Your task to perform on an android device: Search for the best rated tool bag on Lowe's. Image 0: 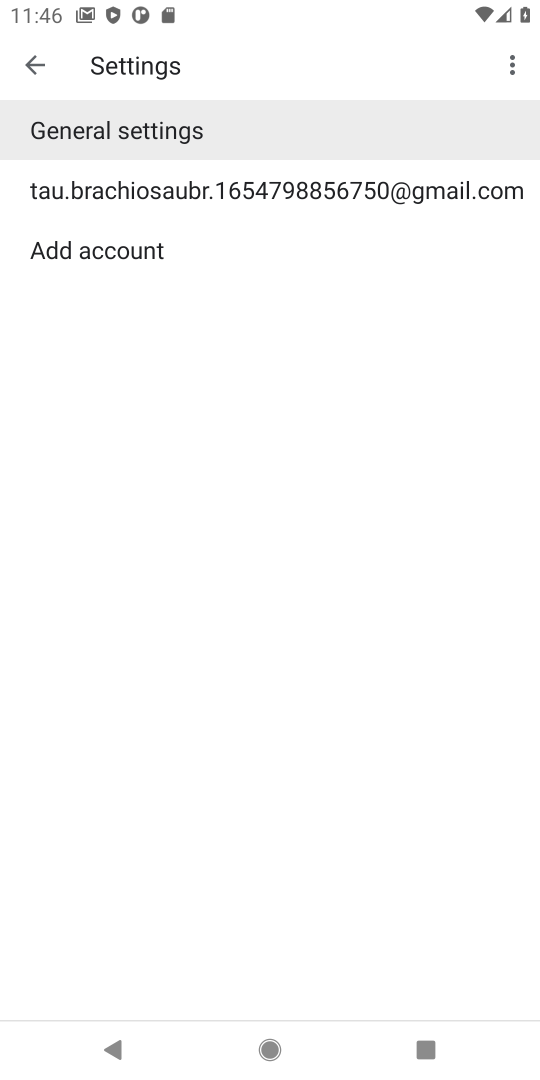
Step 0: press home button
Your task to perform on an android device: Search for the best rated tool bag on Lowe's. Image 1: 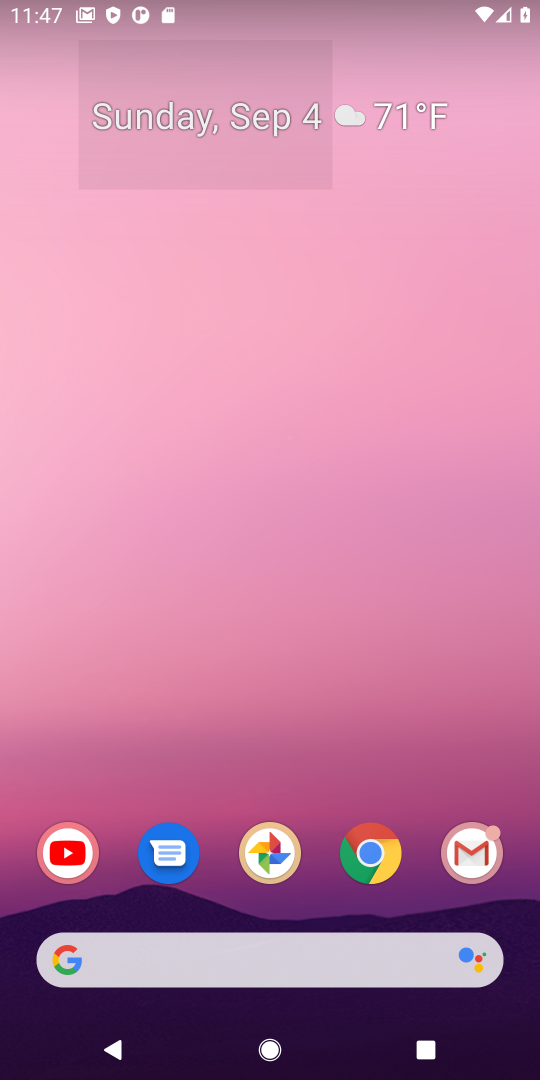
Step 1: click (367, 858)
Your task to perform on an android device: Search for the best rated tool bag on Lowe's. Image 2: 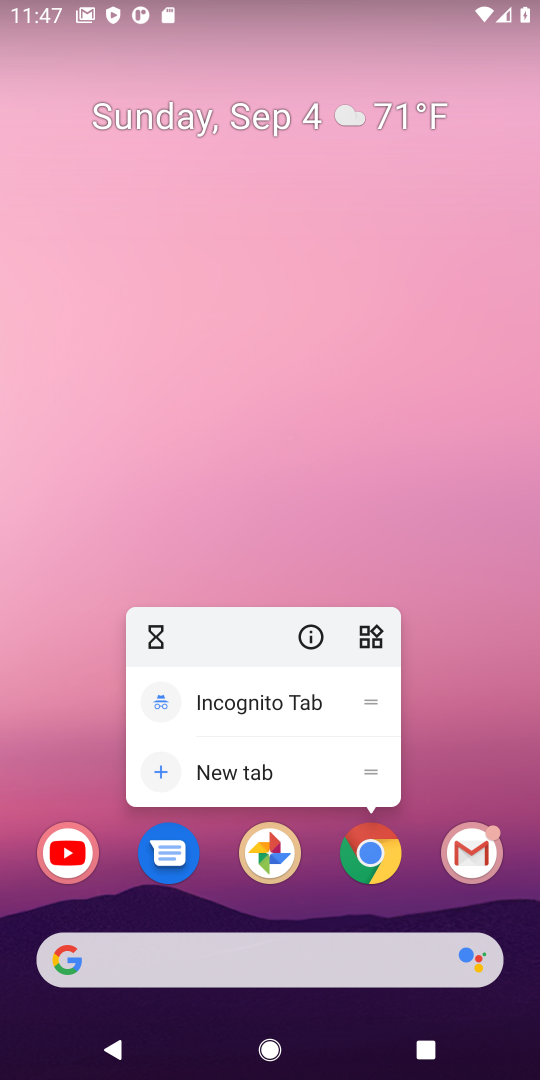
Step 2: click (375, 858)
Your task to perform on an android device: Search for the best rated tool bag on Lowe's. Image 3: 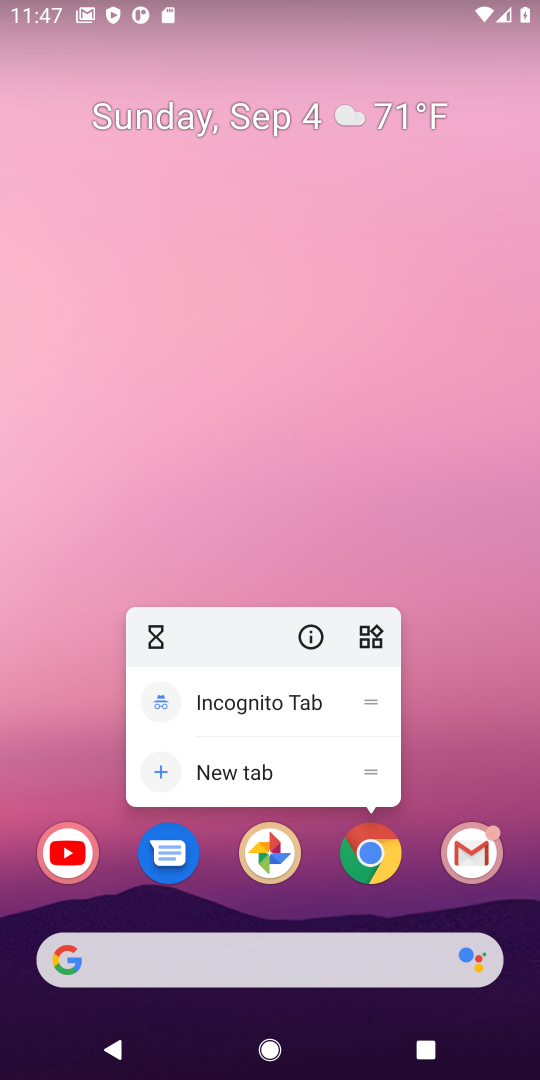
Step 3: click (375, 860)
Your task to perform on an android device: Search for the best rated tool bag on Lowe's. Image 4: 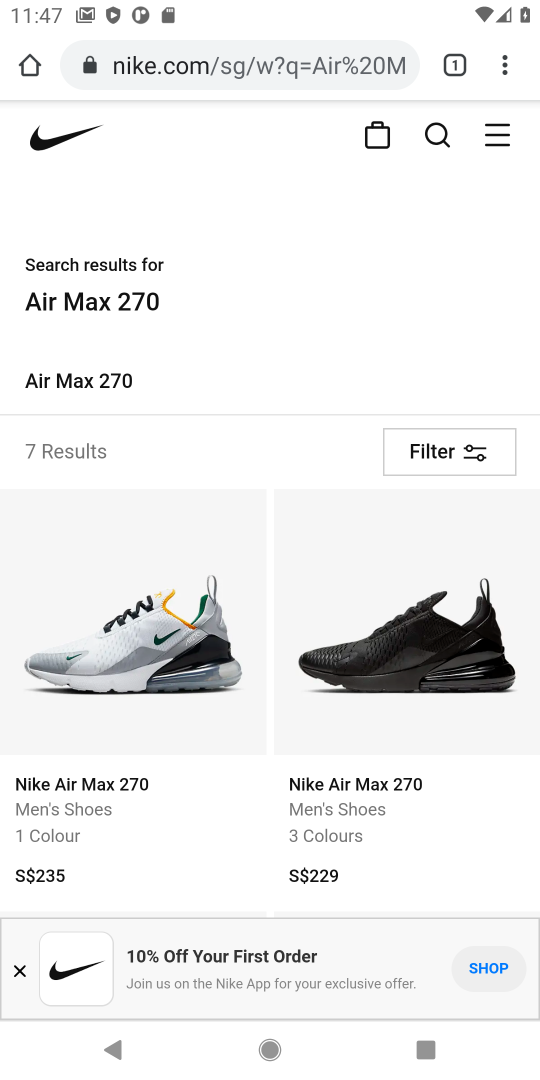
Step 4: click (204, 73)
Your task to perform on an android device: Search for the best rated tool bag on Lowe's. Image 5: 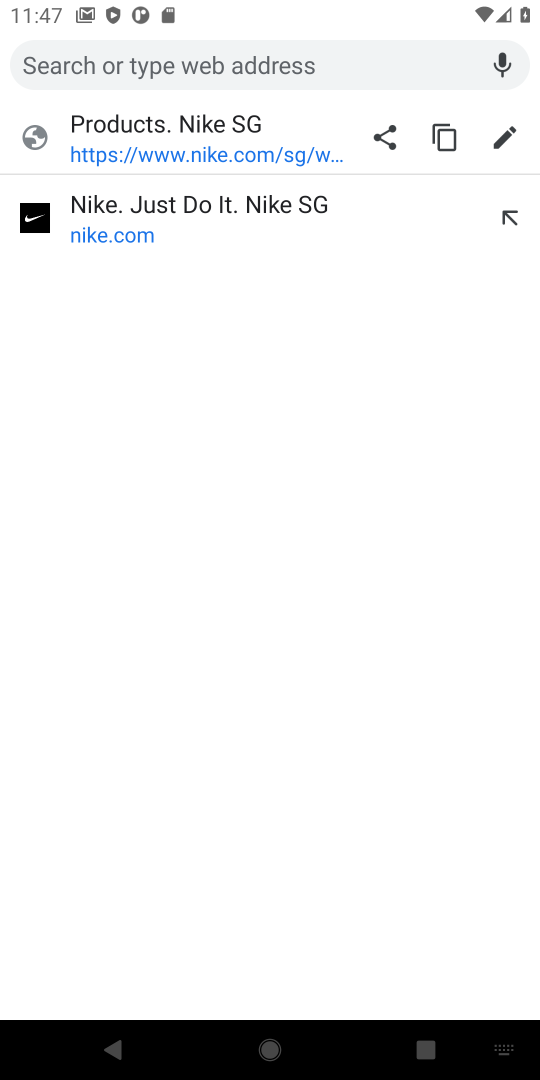
Step 5: type "Lowe's"
Your task to perform on an android device: Search for the best rated tool bag on Lowe's. Image 6: 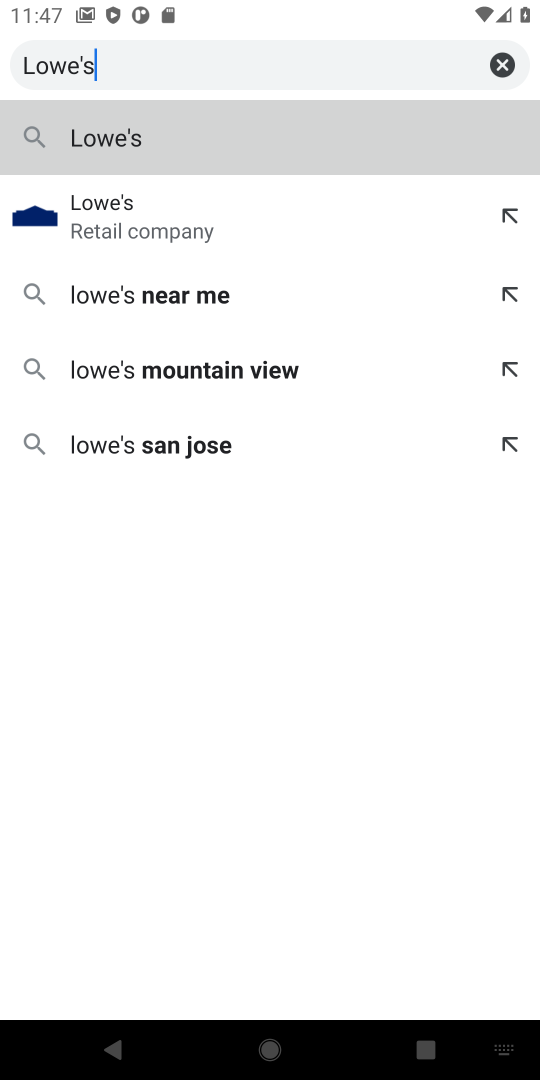
Step 6: press enter
Your task to perform on an android device: Search for the best rated tool bag on Lowe's. Image 7: 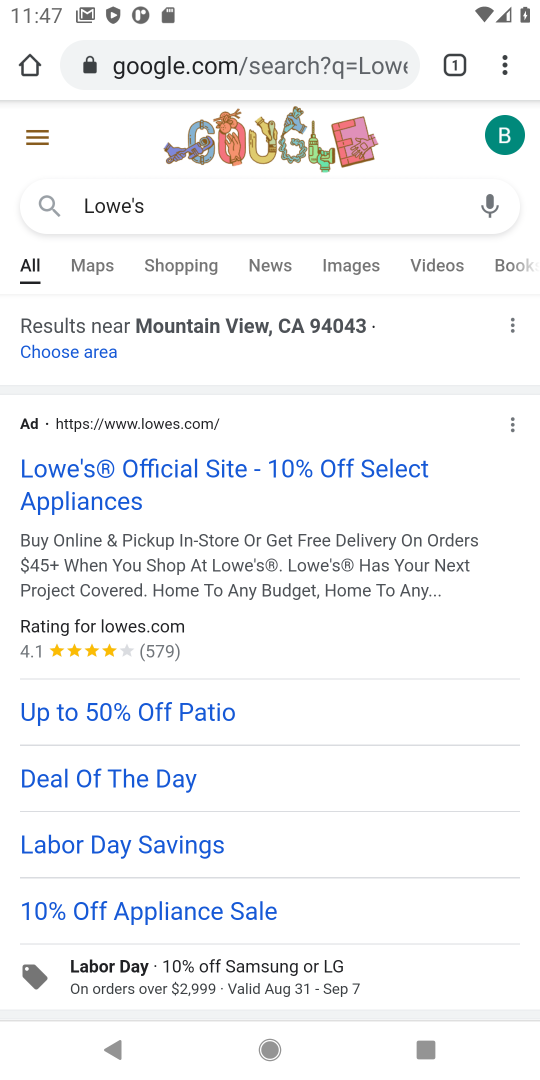
Step 7: click (177, 465)
Your task to perform on an android device: Search for the best rated tool bag on Lowe's. Image 8: 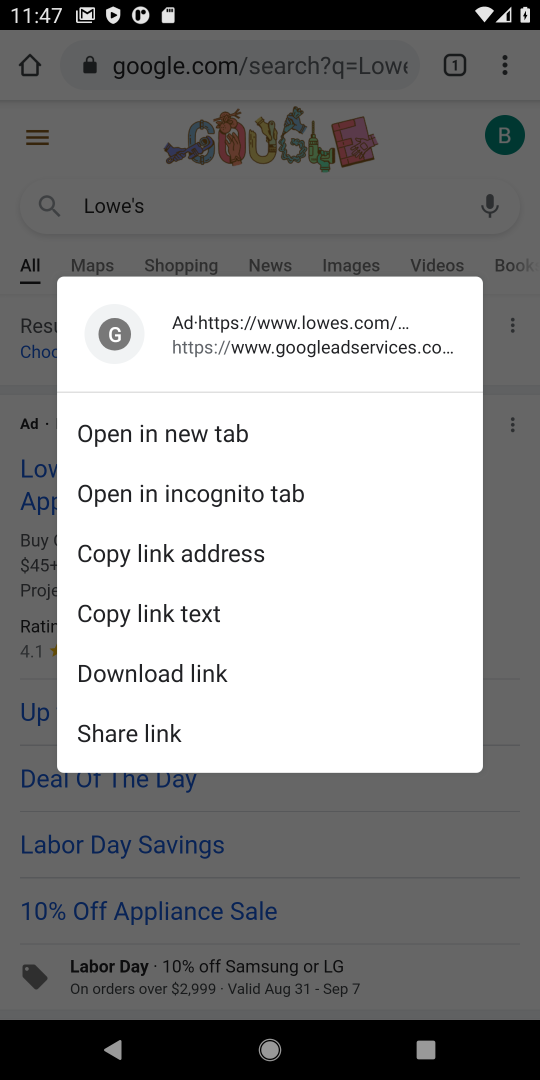
Step 8: click (499, 584)
Your task to perform on an android device: Search for the best rated tool bag on Lowe's. Image 9: 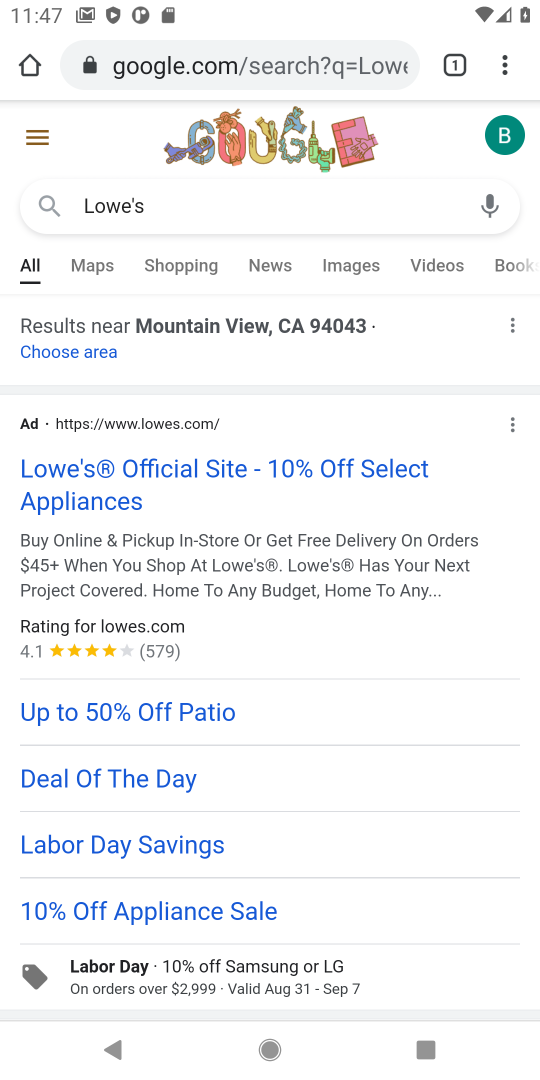
Step 9: click (68, 465)
Your task to perform on an android device: Search for the best rated tool bag on Lowe's. Image 10: 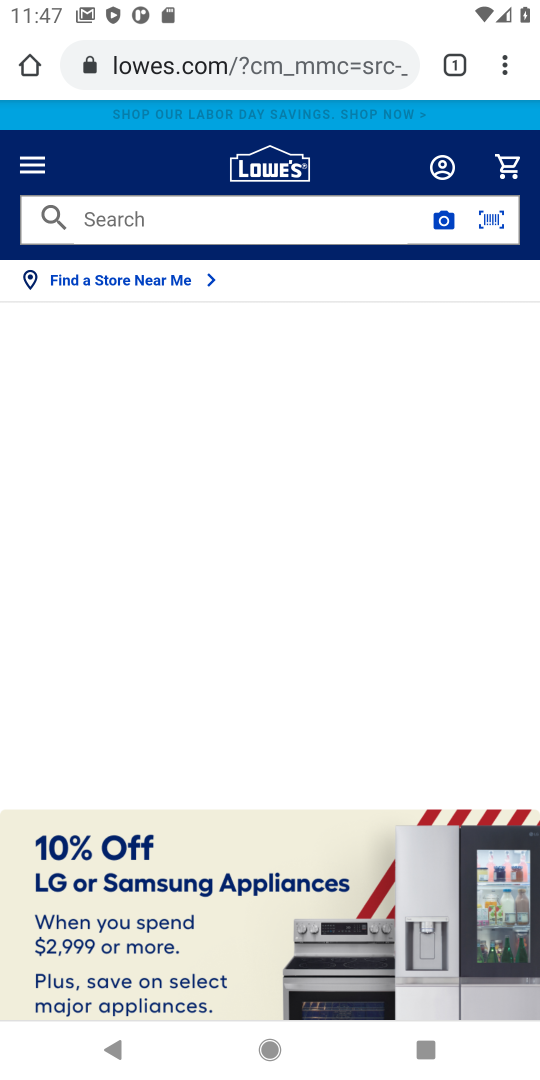
Step 10: click (320, 225)
Your task to perform on an android device: Search for the best rated tool bag on Lowe's. Image 11: 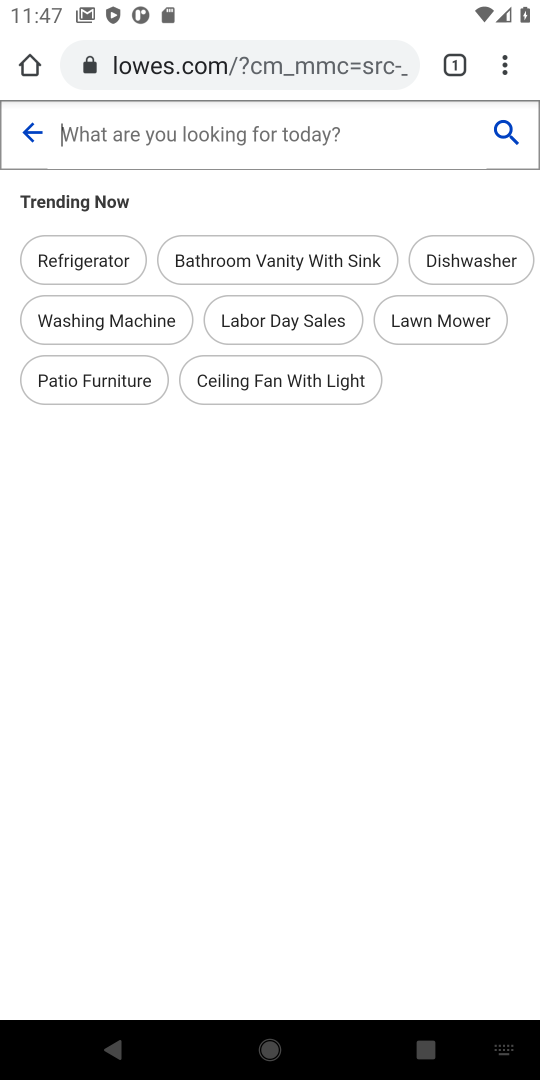
Step 11: type " tool bag"
Your task to perform on an android device: Search for the best rated tool bag on Lowe's. Image 12: 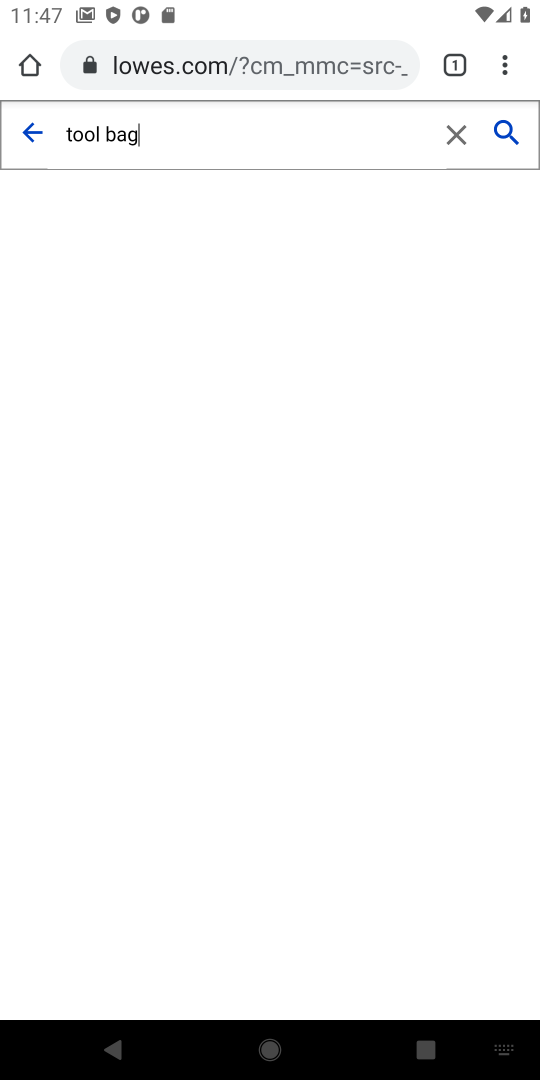
Step 12: press enter
Your task to perform on an android device: Search for the best rated tool bag on Lowe's. Image 13: 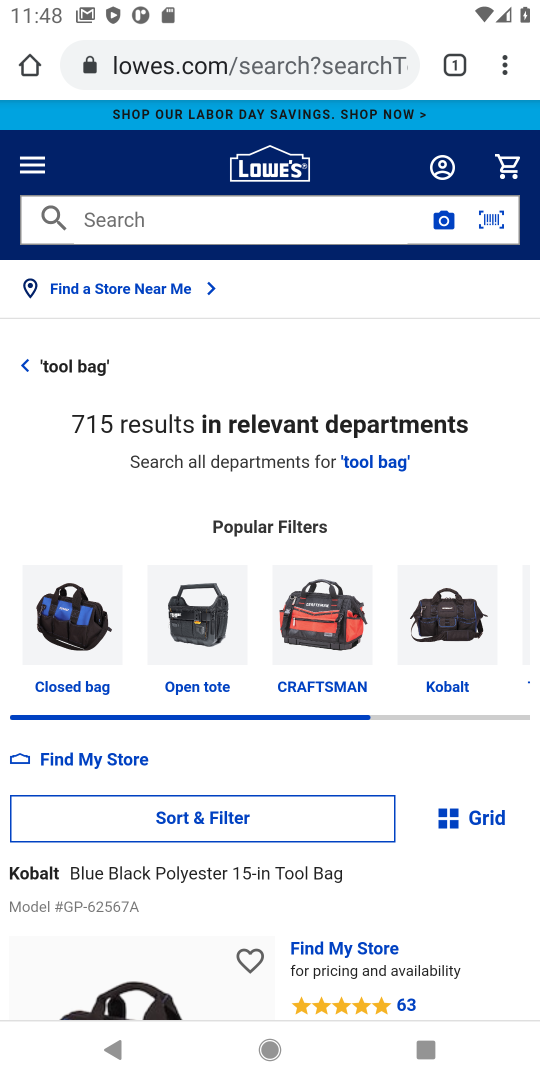
Step 13: task complete